Your task to perform on an android device: Open calendar and show me the third week of next month Image 0: 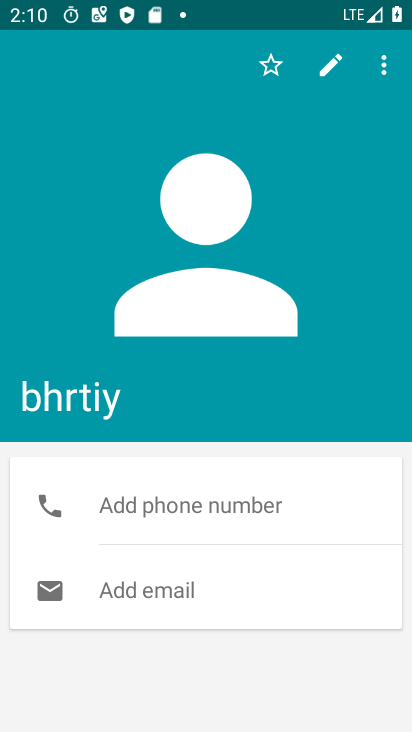
Step 0: press home button
Your task to perform on an android device: Open calendar and show me the third week of next month Image 1: 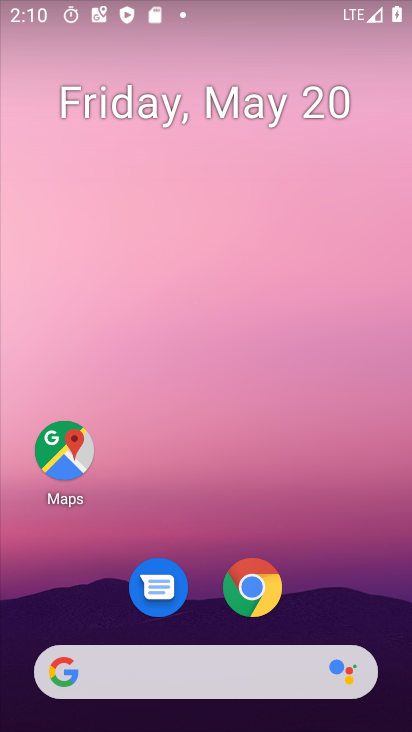
Step 1: drag from (363, 532) to (370, 88)
Your task to perform on an android device: Open calendar and show me the third week of next month Image 2: 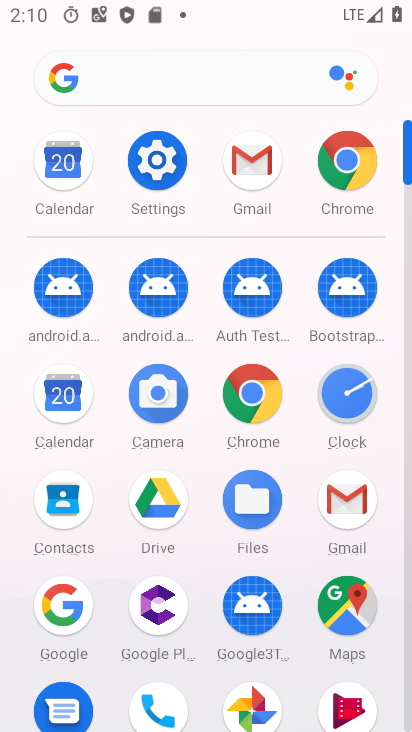
Step 2: click (51, 410)
Your task to perform on an android device: Open calendar and show me the third week of next month Image 3: 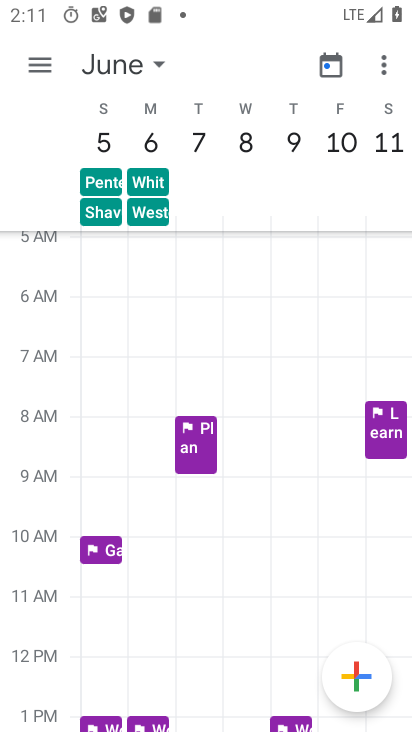
Step 3: click (98, 72)
Your task to perform on an android device: Open calendar and show me the third week of next month Image 4: 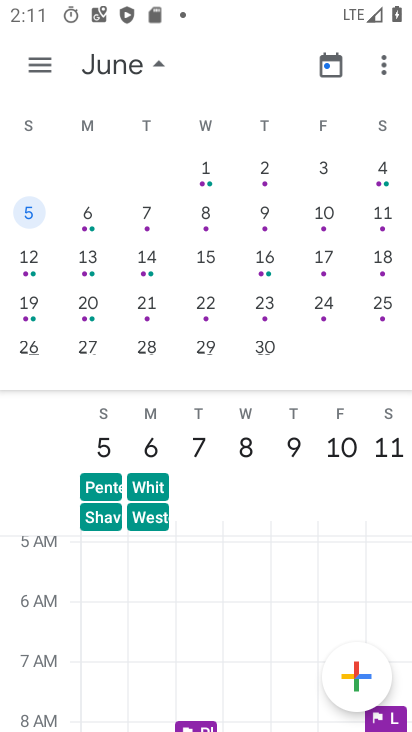
Step 4: drag from (338, 262) to (10, 209)
Your task to perform on an android device: Open calendar and show me the third week of next month Image 5: 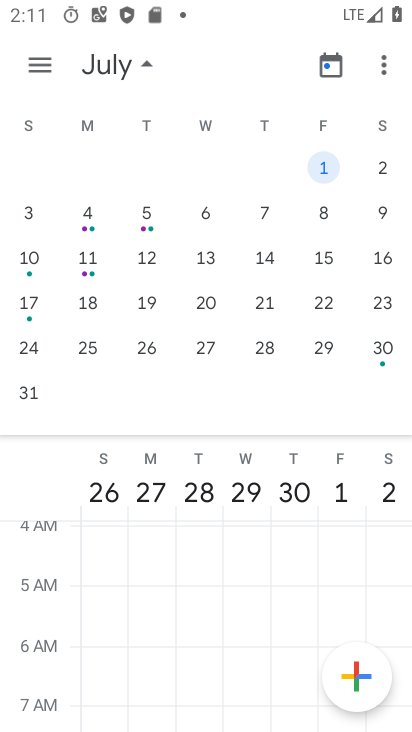
Step 5: drag from (60, 229) to (404, 321)
Your task to perform on an android device: Open calendar and show me the third week of next month Image 6: 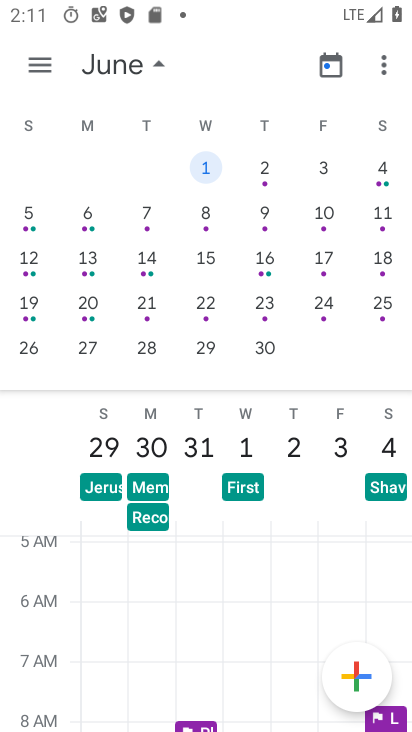
Step 6: click (95, 258)
Your task to perform on an android device: Open calendar and show me the third week of next month Image 7: 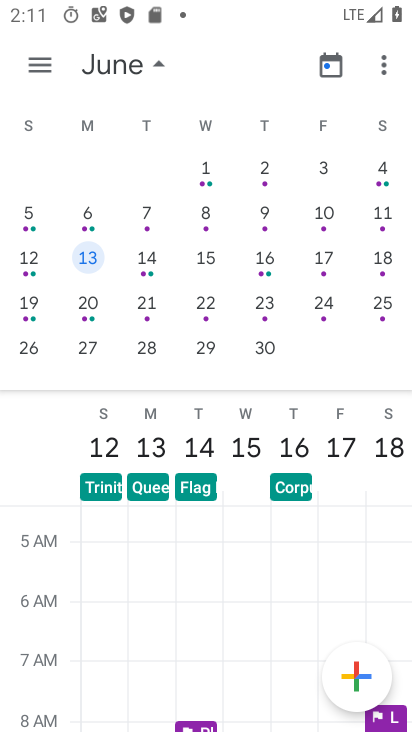
Step 7: click (84, 304)
Your task to perform on an android device: Open calendar and show me the third week of next month Image 8: 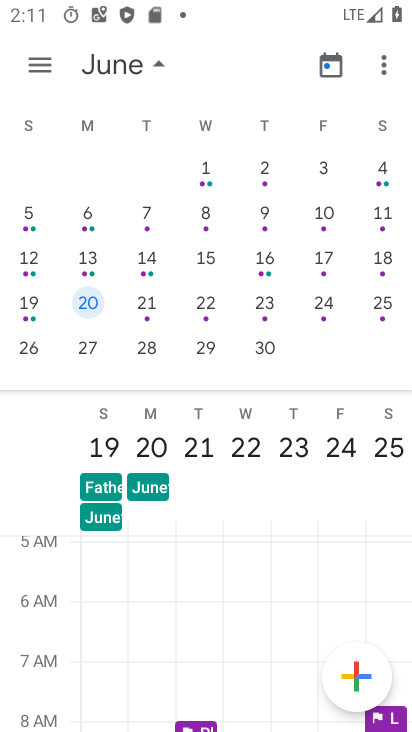
Step 8: task complete